Your task to perform on an android device: Open Android settings Image 0: 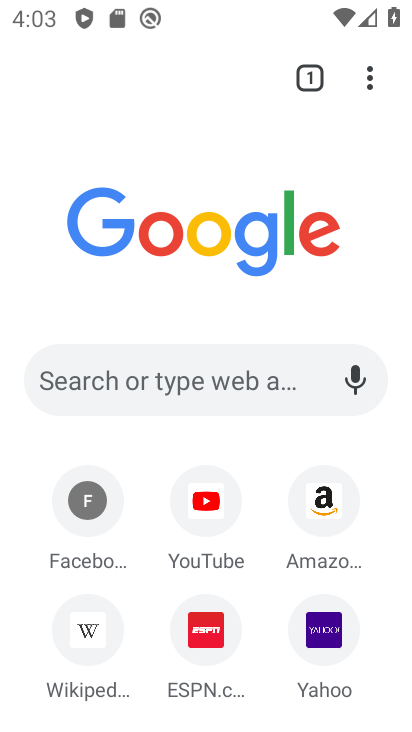
Step 0: press home button
Your task to perform on an android device: Open Android settings Image 1: 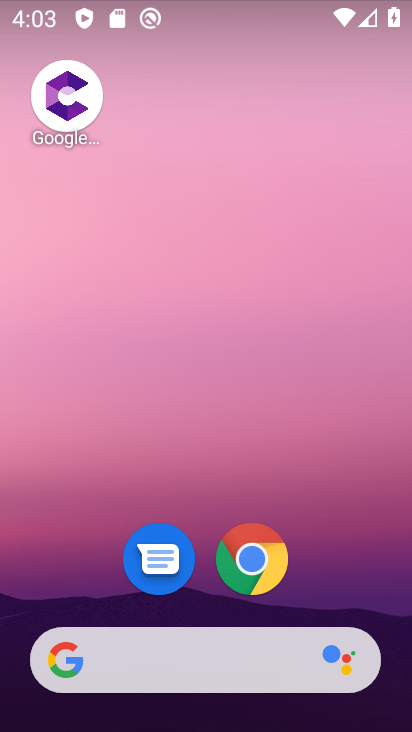
Step 1: drag from (208, 667) to (239, 95)
Your task to perform on an android device: Open Android settings Image 2: 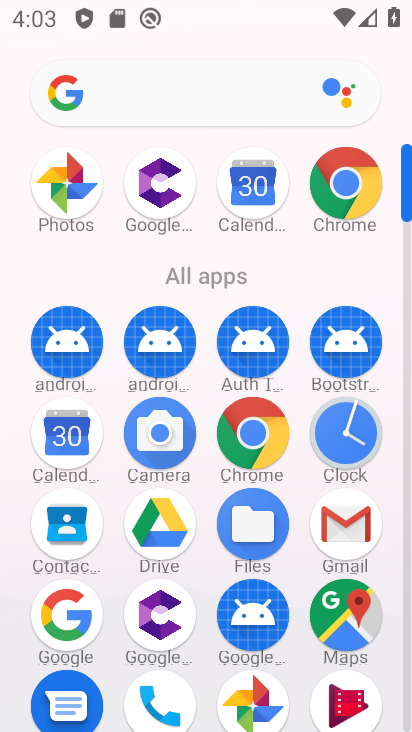
Step 2: drag from (301, 576) to (294, 87)
Your task to perform on an android device: Open Android settings Image 3: 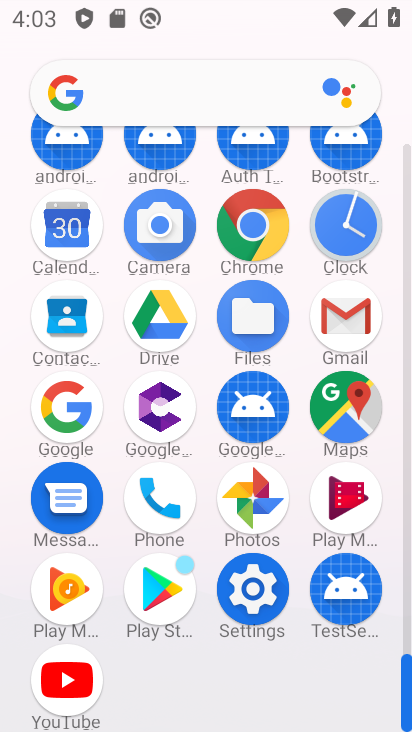
Step 3: click (270, 603)
Your task to perform on an android device: Open Android settings Image 4: 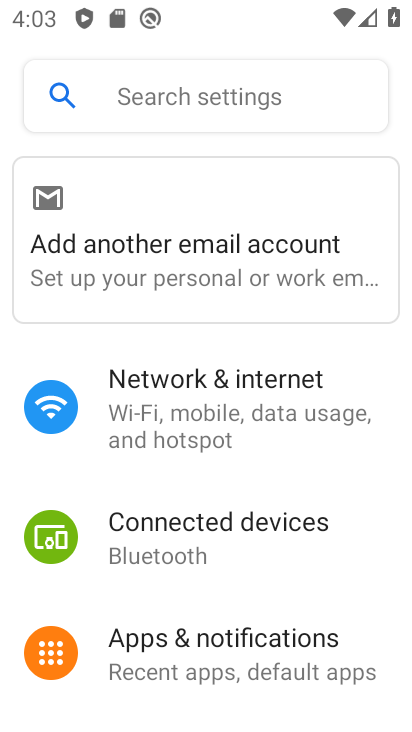
Step 4: drag from (303, 650) to (326, 131)
Your task to perform on an android device: Open Android settings Image 5: 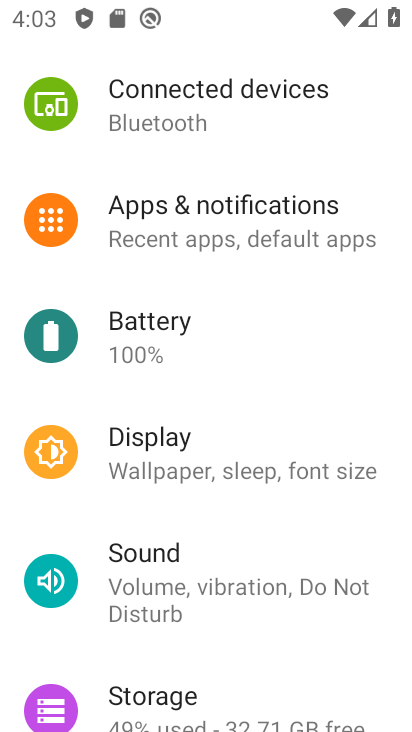
Step 5: drag from (305, 596) to (351, 74)
Your task to perform on an android device: Open Android settings Image 6: 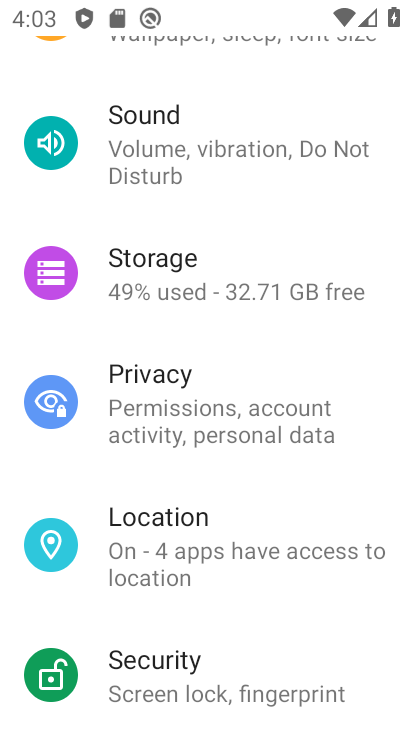
Step 6: drag from (288, 555) to (320, 299)
Your task to perform on an android device: Open Android settings Image 7: 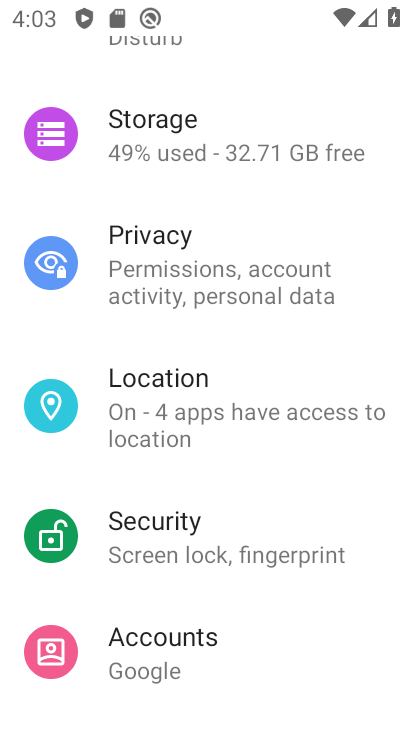
Step 7: drag from (241, 649) to (232, 226)
Your task to perform on an android device: Open Android settings Image 8: 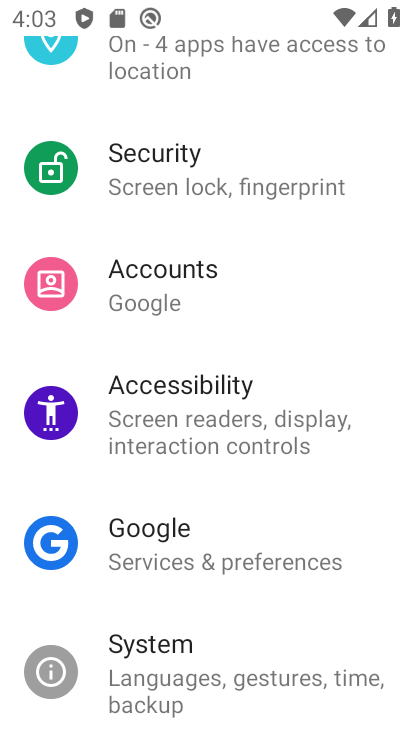
Step 8: drag from (271, 683) to (285, 102)
Your task to perform on an android device: Open Android settings Image 9: 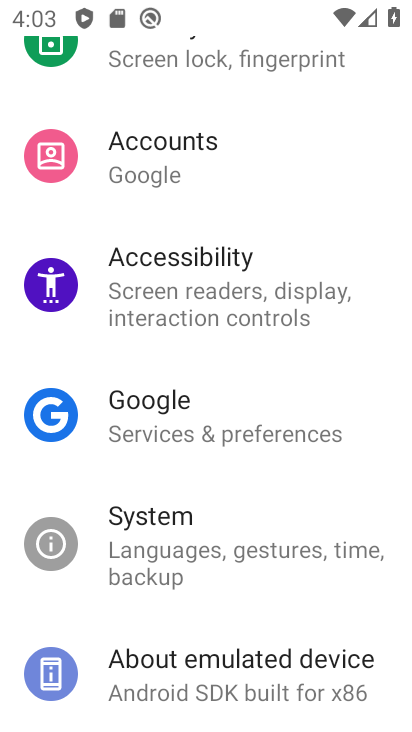
Step 9: click (327, 689)
Your task to perform on an android device: Open Android settings Image 10: 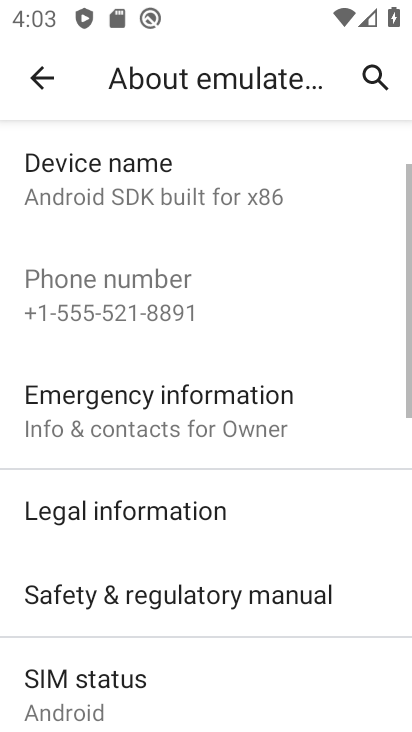
Step 10: drag from (323, 694) to (348, 119)
Your task to perform on an android device: Open Android settings Image 11: 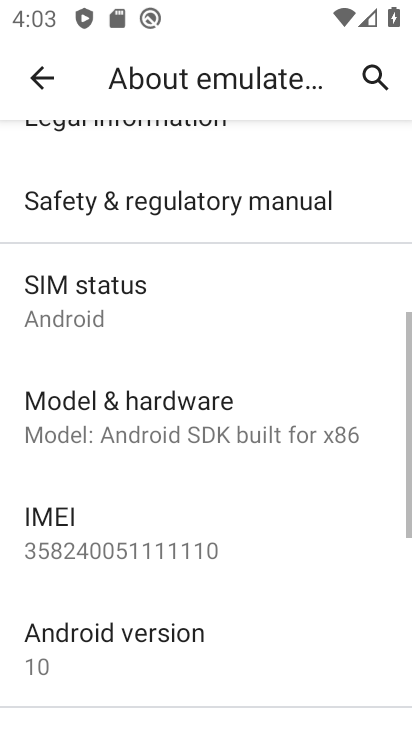
Step 11: click (189, 639)
Your task to perform on an android device: Open Android settings Image 12: 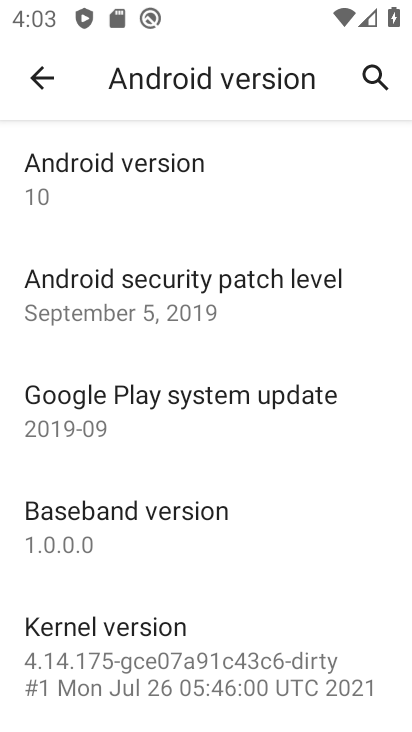
Step 12: task complete